Your task to perform on an android device: turn on the 12-hour format for clock Image 0: 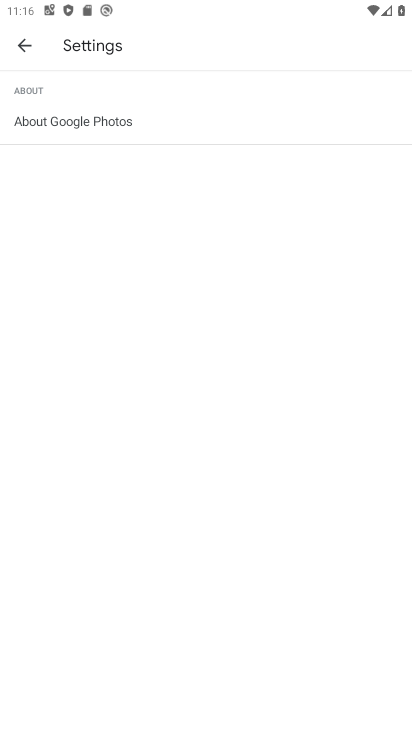
Step 0: press home button
Your task to perform on an android device: turn on the 12-hour format for clock Image 1: 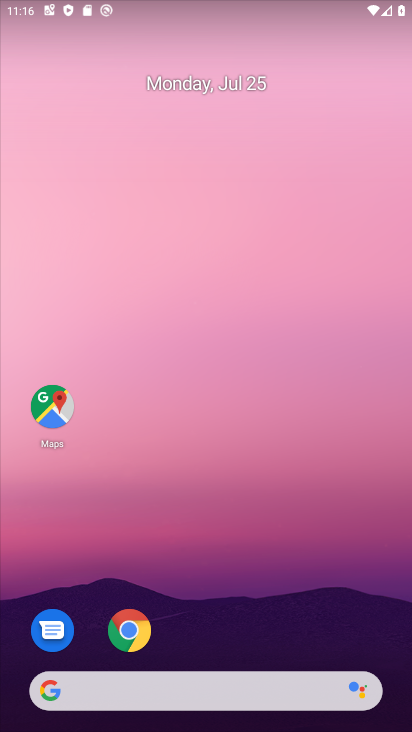
Step 1: drag from (334, 591) to (359, 198)
Your task to perform on an android device: turn on the 12-hour format for clock Image 2: 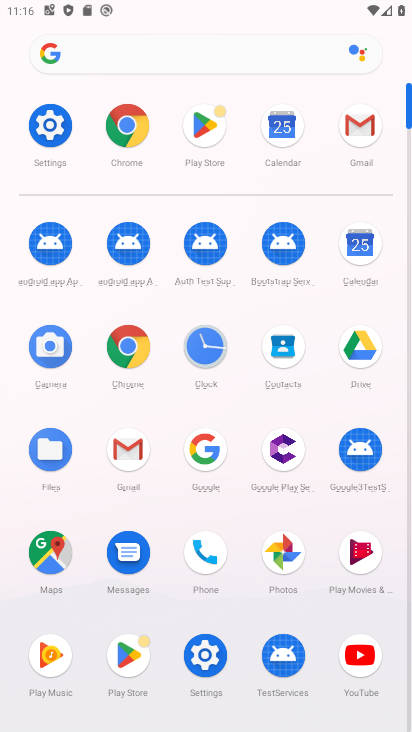
Step 2: click (206, 340)
Your task to perform on an android device: turn on the 12-hour format for clock Image 3: 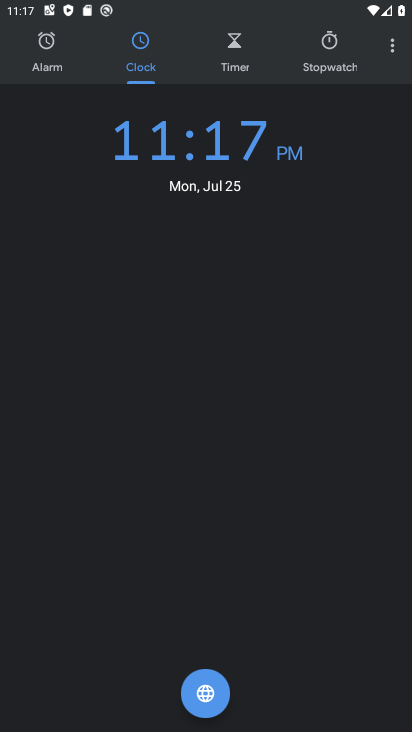
Step 3: click (390, 47)
Your task to perform on an android device: turn on the 12-hour format for clock Image 4: 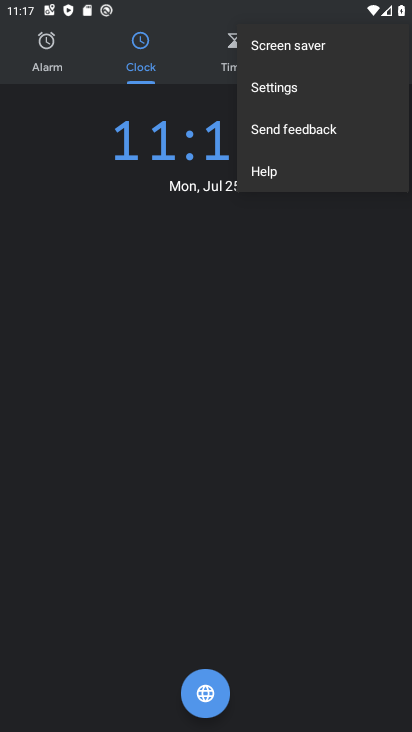
Step 4: click (310, 89)
Your task to perform on an android device: turn on the 12-hour format for clock Image 5: 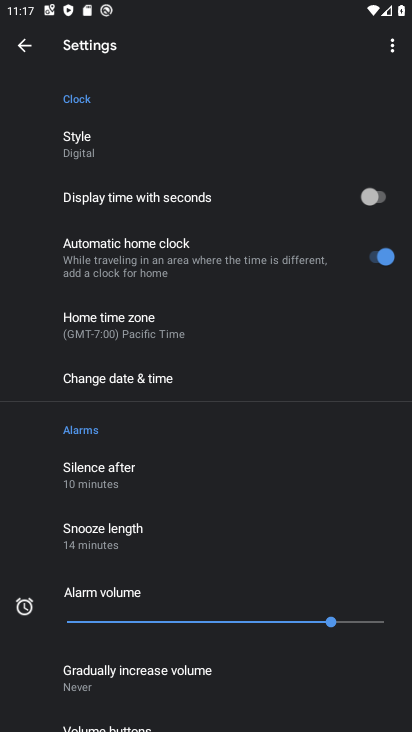
Step 5: drag from (318, 439) to (330, 341)
Your task to perform on an android device: turn on the 12-hour format for clock Image 6: 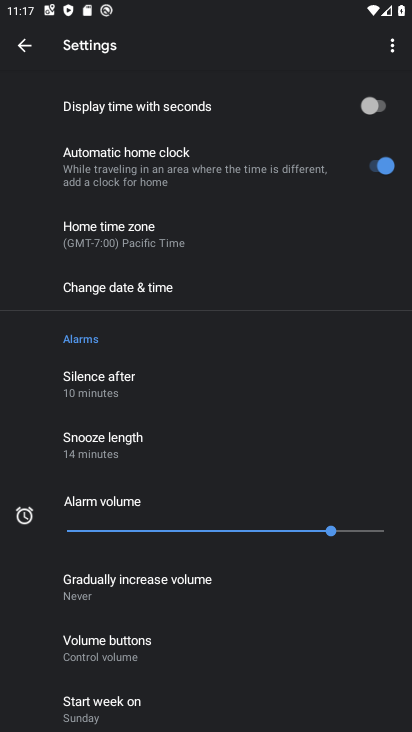
Step 6: drag from (328, 457) to (328, 368)
Your task to perform on an android device: turn on the 12-hour format for clock Image 7: 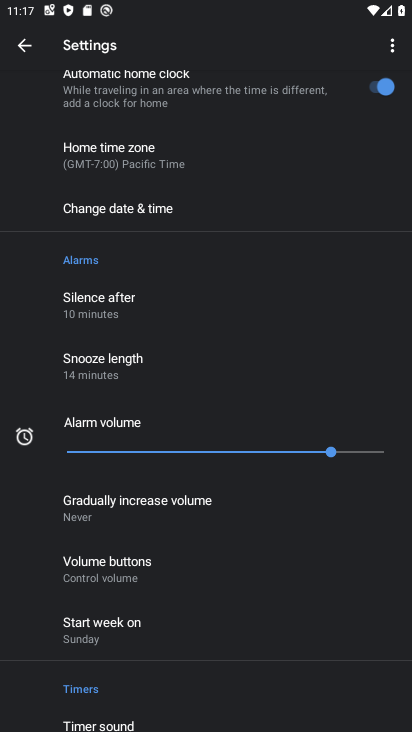
Step 7: drag from (326, 542) to (327, 462)
Your task to perform on an android device: turn on the 12-hour format for clock Image 8: 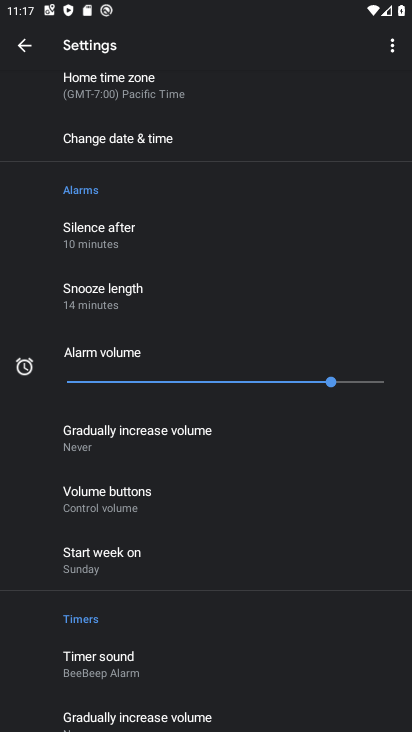
Step 8: drag from (344, 590) to (347, 518)
Your task to perform on an android device: turn on the 12-hour format for clock Image 9: 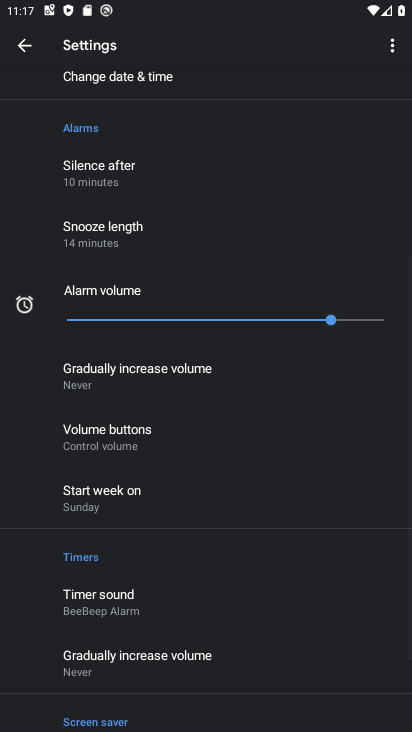
Step 9: drag from (337, 593) to (342, 505)
Your task to perform on an android device: turn on the 12-hour format for clock Image 10: 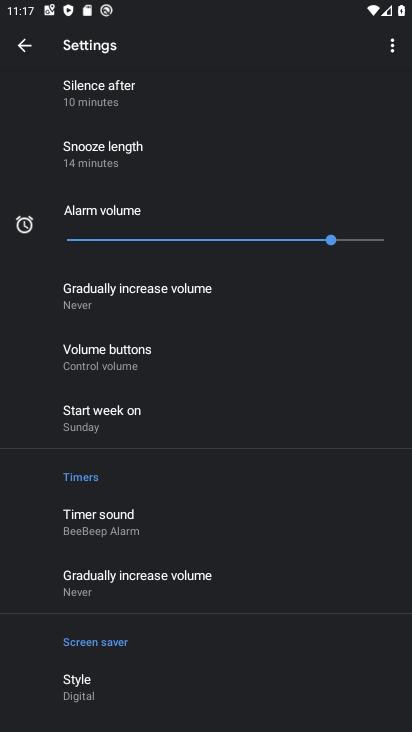
Step 10: drag from (337, 594) to (338, 497)
Your task to perform on an android device: turn on the 12-hour format for clock Image 11: 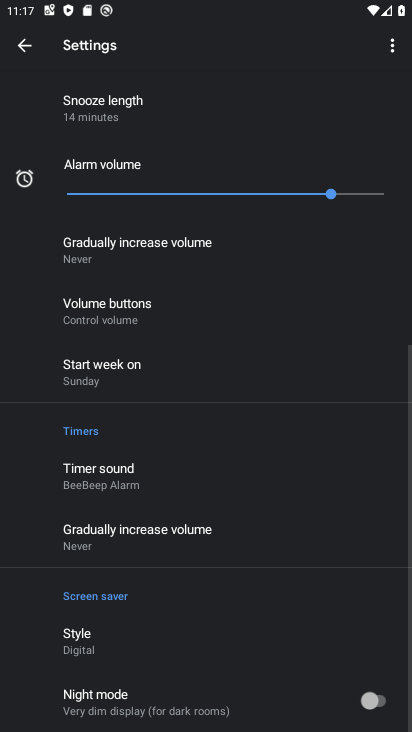
Step 11: drag from (334, 348) to (330, 470)
Your task to perform on an android device: turn on the 12-hour format for clock Image 12: 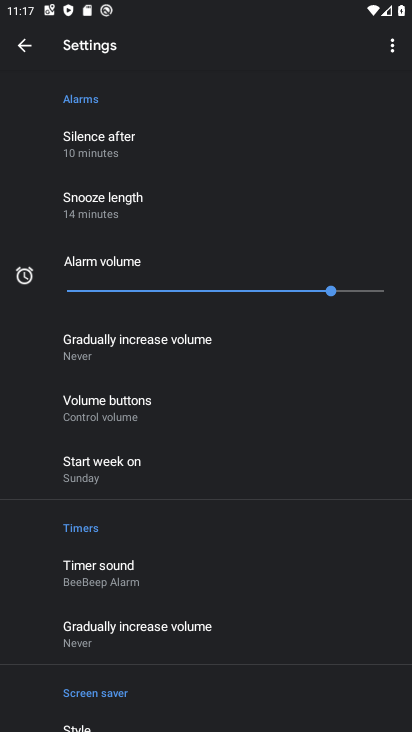
Step 12: drag from (353, 315) to (359, 429)
Your task to perform on an android device: turn on the 12-hour format for clock Image 13: 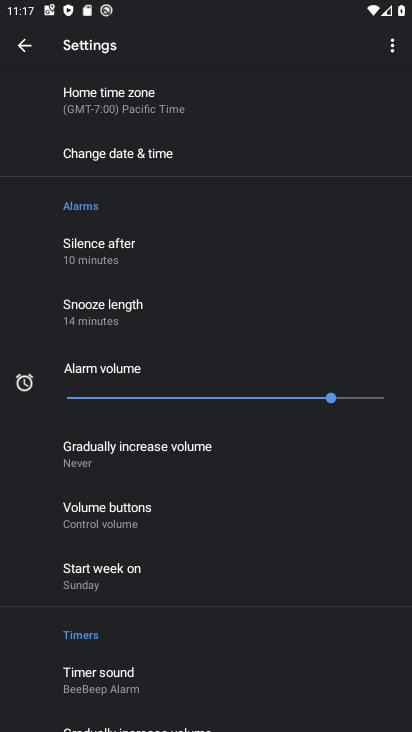
Step 13: drag from (350, 260) to (352, 375)
Your task to perform on an android device: turn on the 12-hour format for clock Image 14: 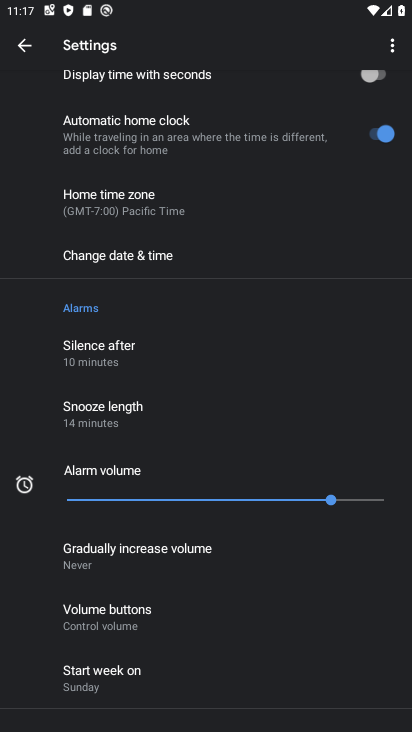
Step 14: drag from (336, 228) to (331, 419)
Your task to perform on an android device: turn on the 12-hour format for clock Image 15: 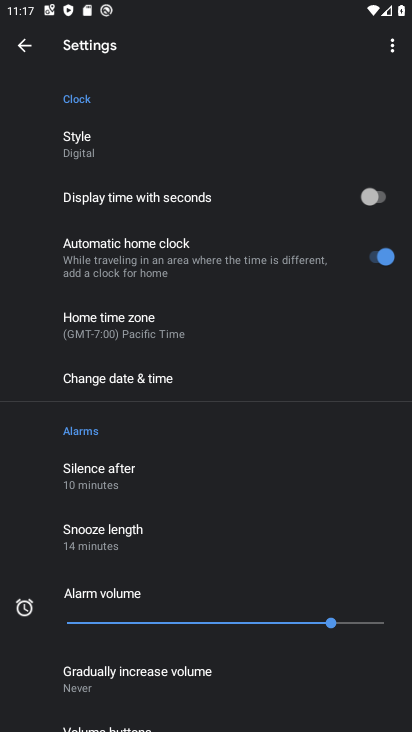
Step 15: click (292, 382)
Your task to perform on an android device: turn on the 12-hour format for clock Image 16: 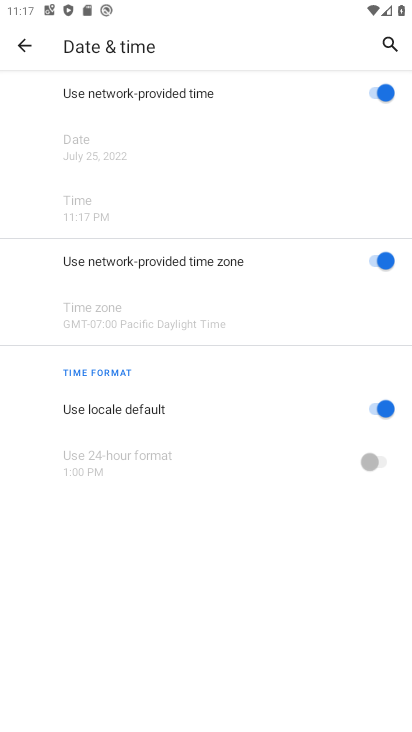
Step 16: task complete